Your task to perform on an android device: see sites visited before in the chrome app Image 0: 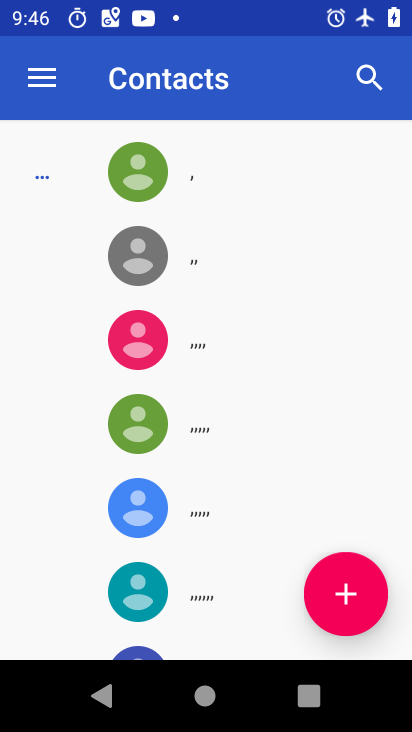
Step 0: press home button
Your task to perform on an android device: see sites visited before in the chrome app Image 1: 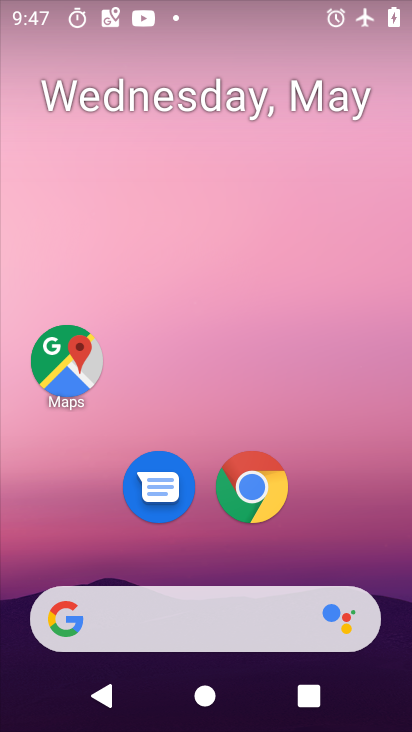
Step 1: click (260, 496)
Your task to perform on an android device: see sites visited before in the chrome app Image 2: 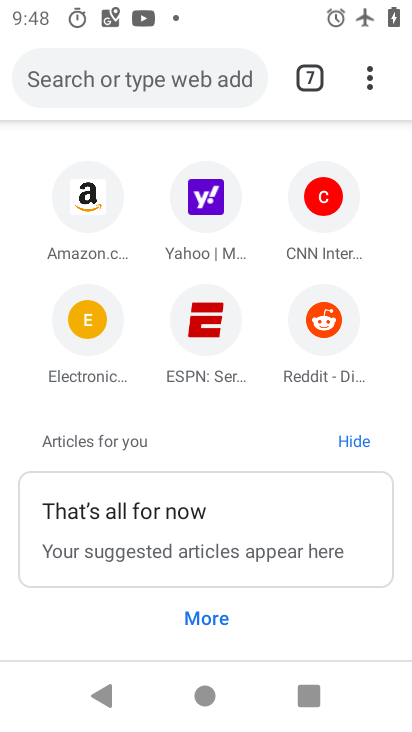
Step 2: click (368, 84)
Your task to perform on an android device: see sites visited before in the chrome app Image 3: 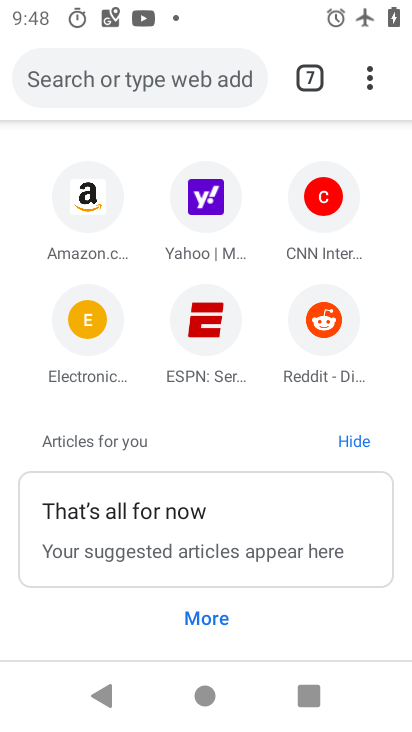
Step 3: task complete